Your task to perform on an android device: turn notification dots on Image 0: 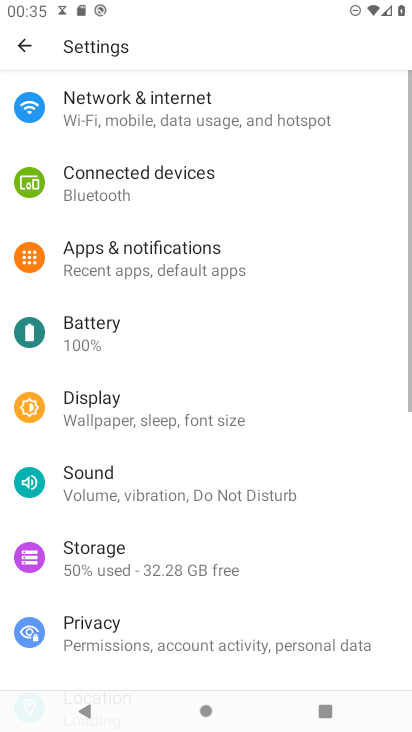
Step 0: press home button
Your task to perform on an android device: turn notification dots on Image 1: 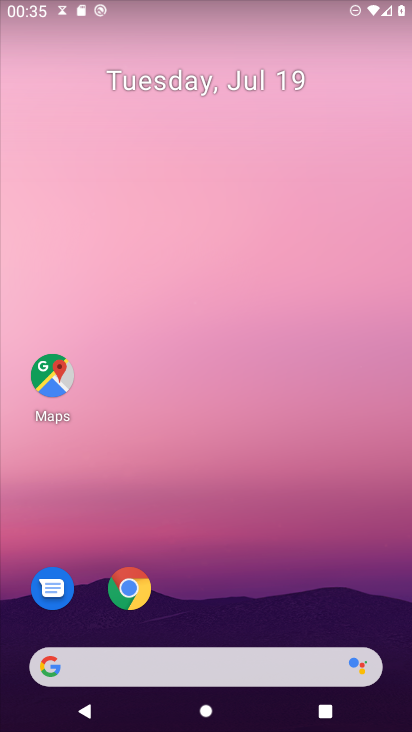
Step 1: drag from (290, 604) to (332, 123)
Your task to perform on an android device: turn notification dots on Image 2: 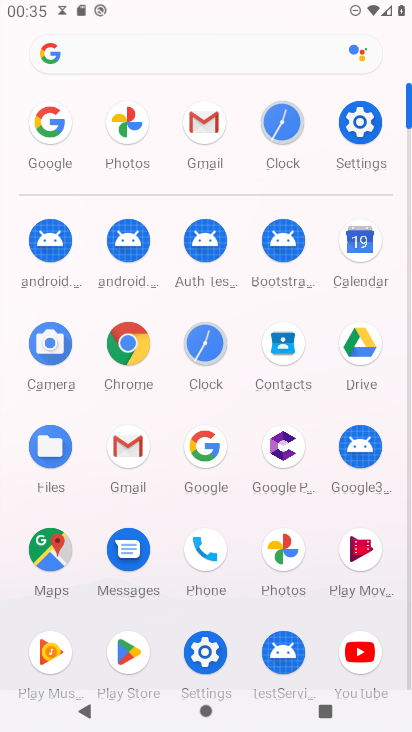
Step 2: click (355, 119)
Your task to perform on an android device: turn notification dots on Image 3: 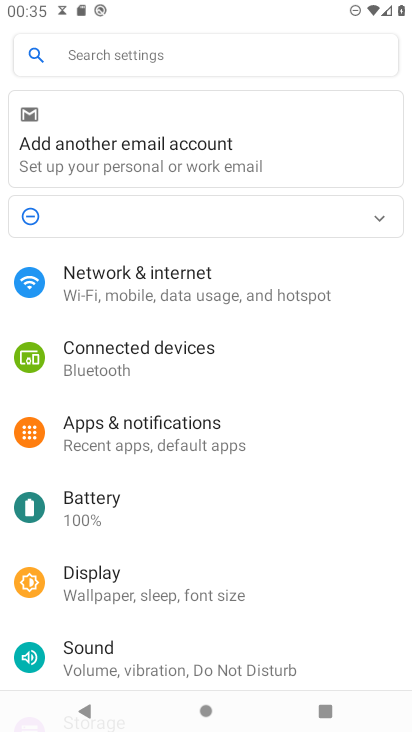
Step 3: click (160, 424)
Your task to perform on an android device: turn notification dots on Image 4: 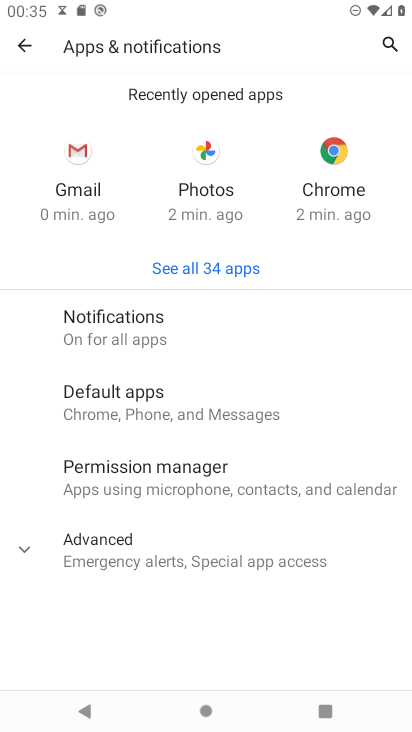
Step 4: click (121, 323)
Your task to perform on an android device: turn notification dots on Image 5: 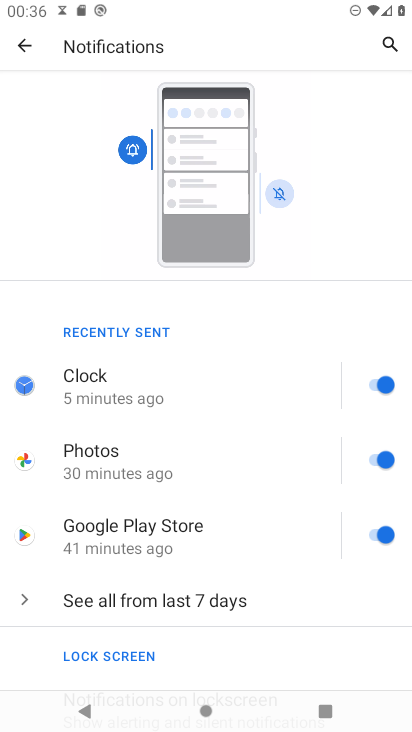
Step 5: drag from (223, 655) to (259, 271)
Your task to perform on an android device: turn notification dots on Image 6: 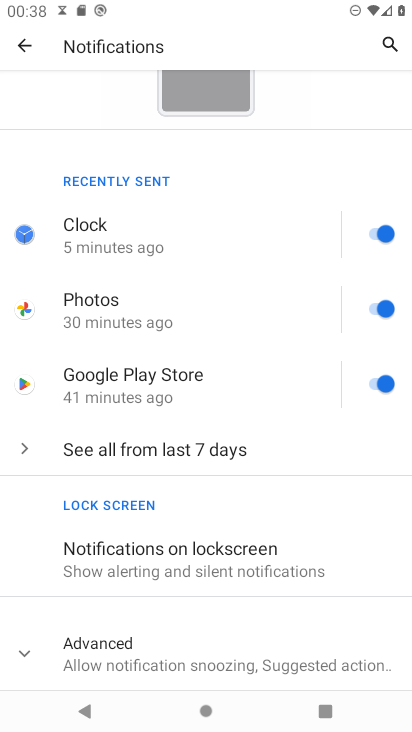
Step 6: click (27, 648)
Your task to perform on an android device: turn notification dots on Image 7: 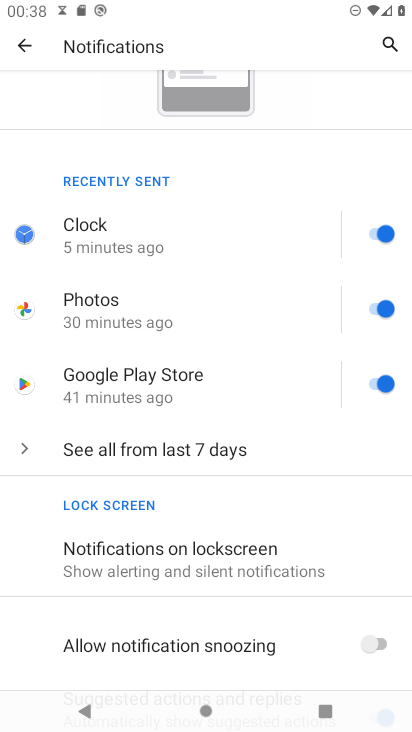
Step 7: drag from (334, 575) to (345, 328)
Your task to perform on an android device: turn notification dots on Image 8: 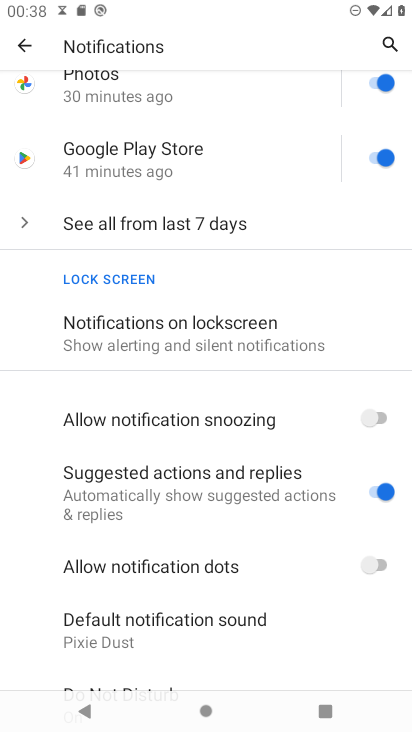
Step 8: click (381, 561)
Your task to perform on an android device: turn notification dots on Image 9: 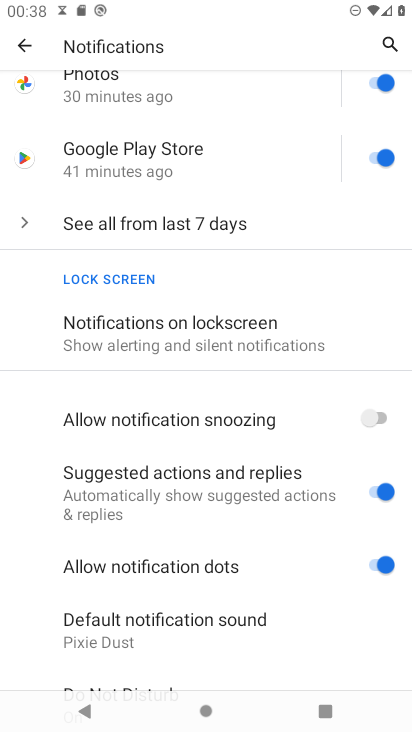
Step 9: task complete